Your task to perform on an android device: Go to notification settings Image 0: 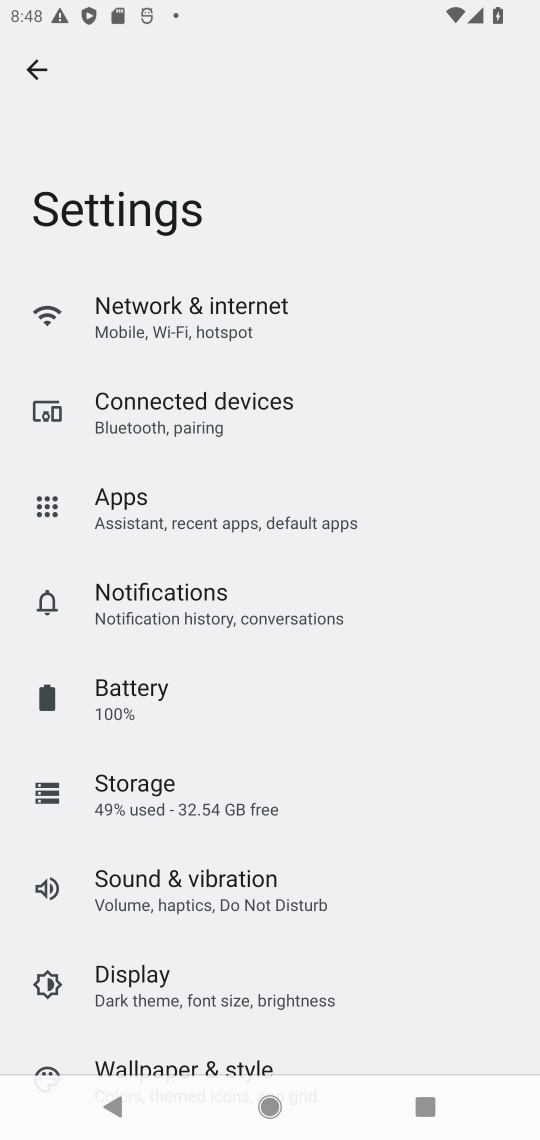
Step 0: click (210, 604)
Your task to perform on an android device: Go to notification settings Image 1: 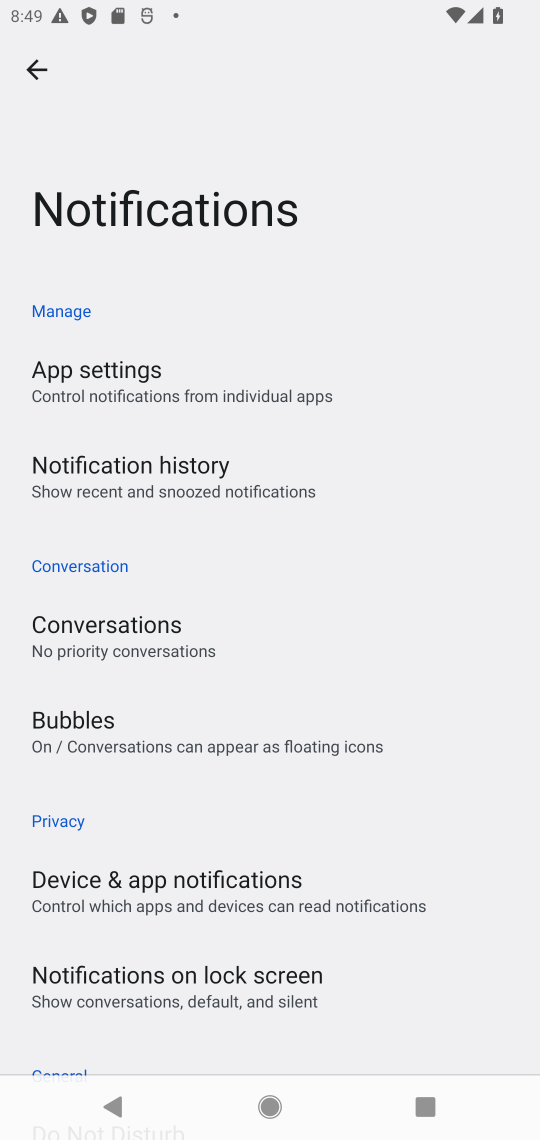
Step 1: task complete